Your task to perform on an android device: Go to Reddit.com Image 0: 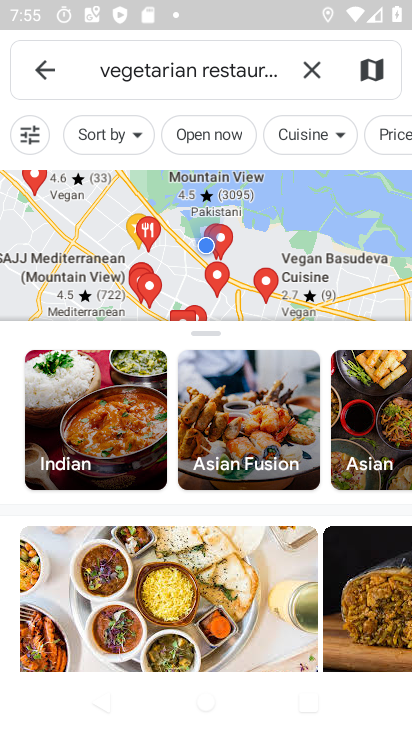
Step 0: press home button
Your task to perform on an android device: Go to Reddit.com Image 1: 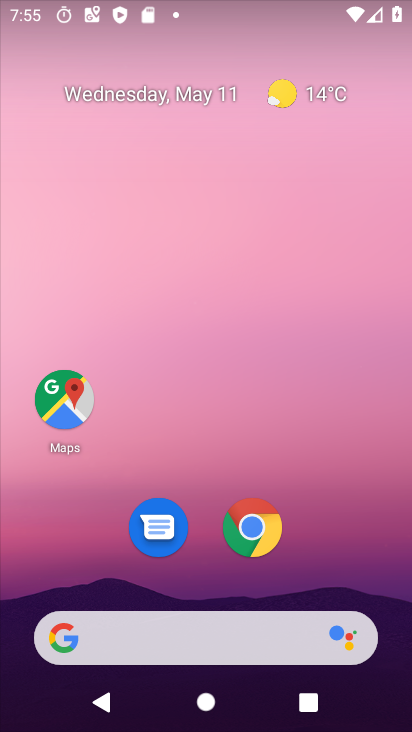
Step 1: drag from (325, 560) to (324, 288)
Your task to perform on an android device: Go to Reddit.com Image 2: 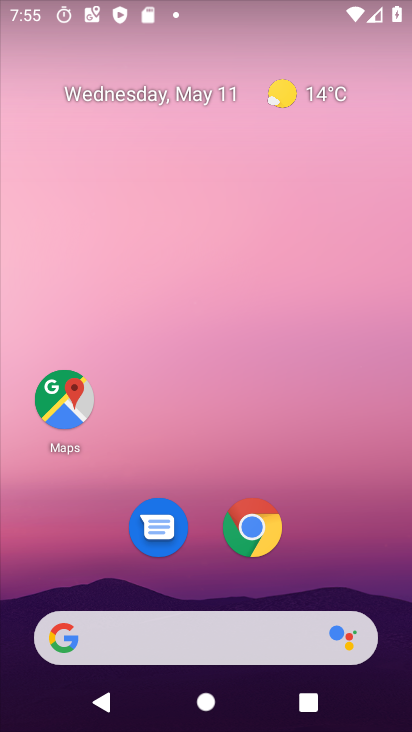
Step 2: drag from (247, 602) to (238, 282)
Your task to perform on an android device: Go to Reddit.com Image 3: 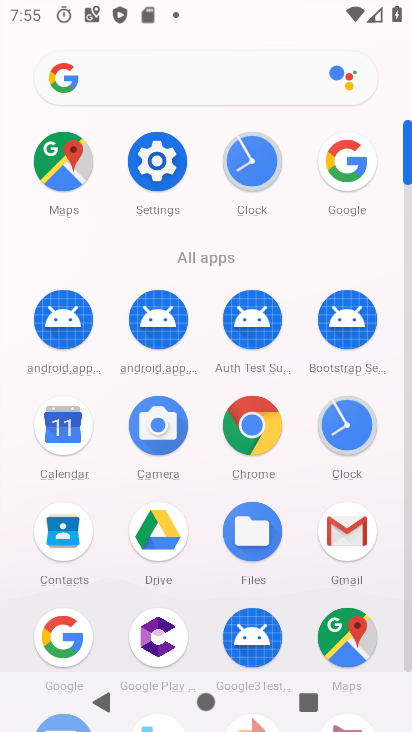
Step 3: click (268, 439)
Your task to perform on an android device: Go to Reddit.com Image 4: 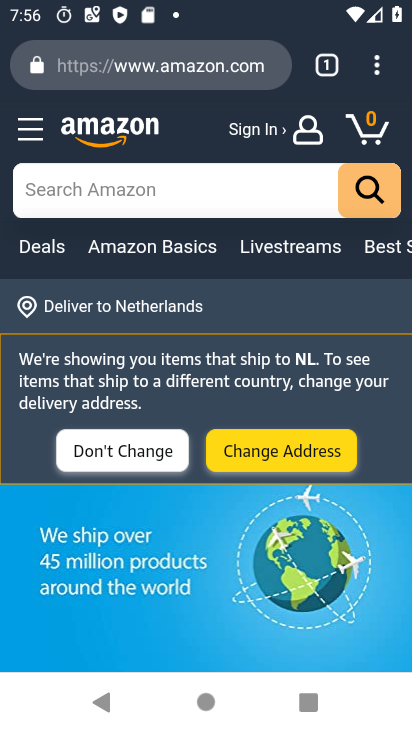
Step 4: click (260, 72)
Your task to perform on an android device: Go to Reddit.com Image 5: 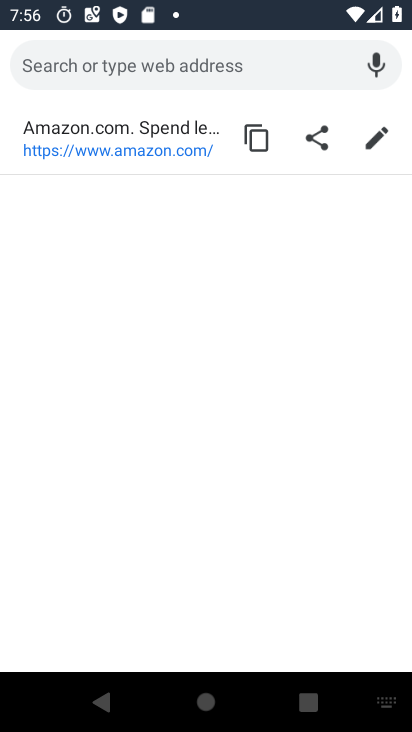
Step 5: type "reddit.com"
Your task to perform on an android device: Go to Reddit.com Image 6: 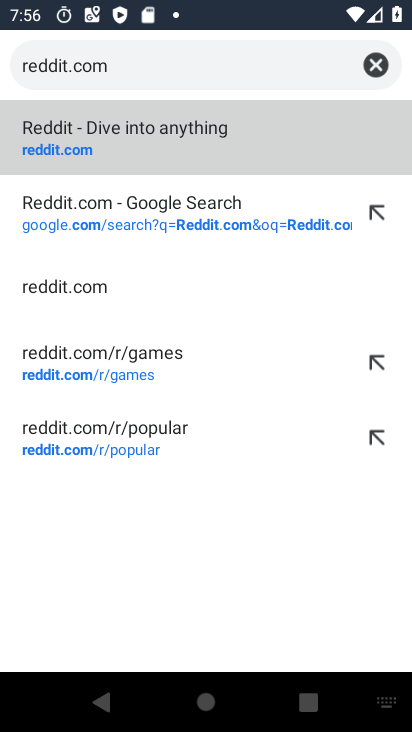
Step 6: click (303, 128)
Your task to perform on an android device: Go to Reddit.com Image 7: 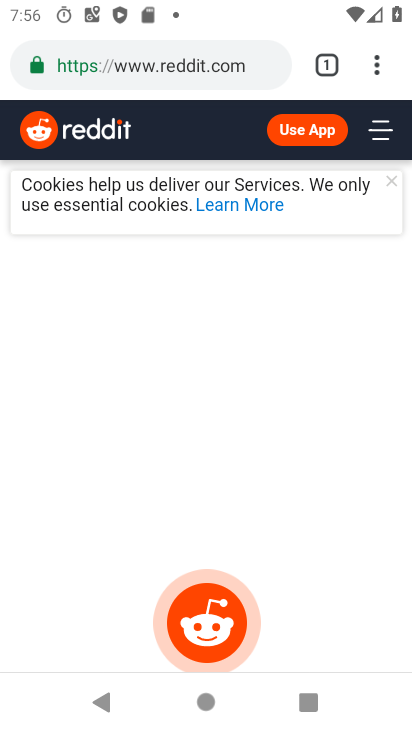
Step 7: task complete